Your task to perform on an android device: change notification settings in the gmail app Image 0: 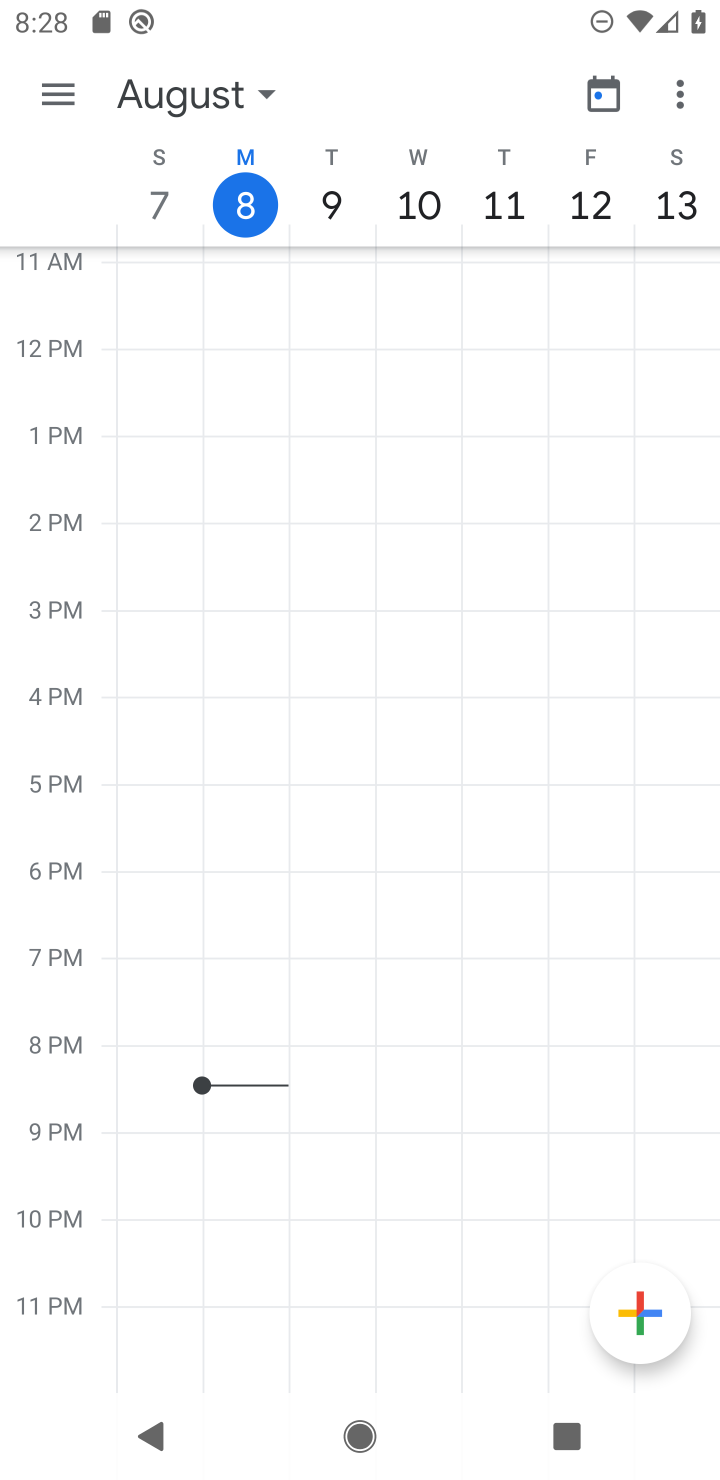
Step 0: press home button
Your task to perform on an android device: change notification settings in the gmail app Image 1: 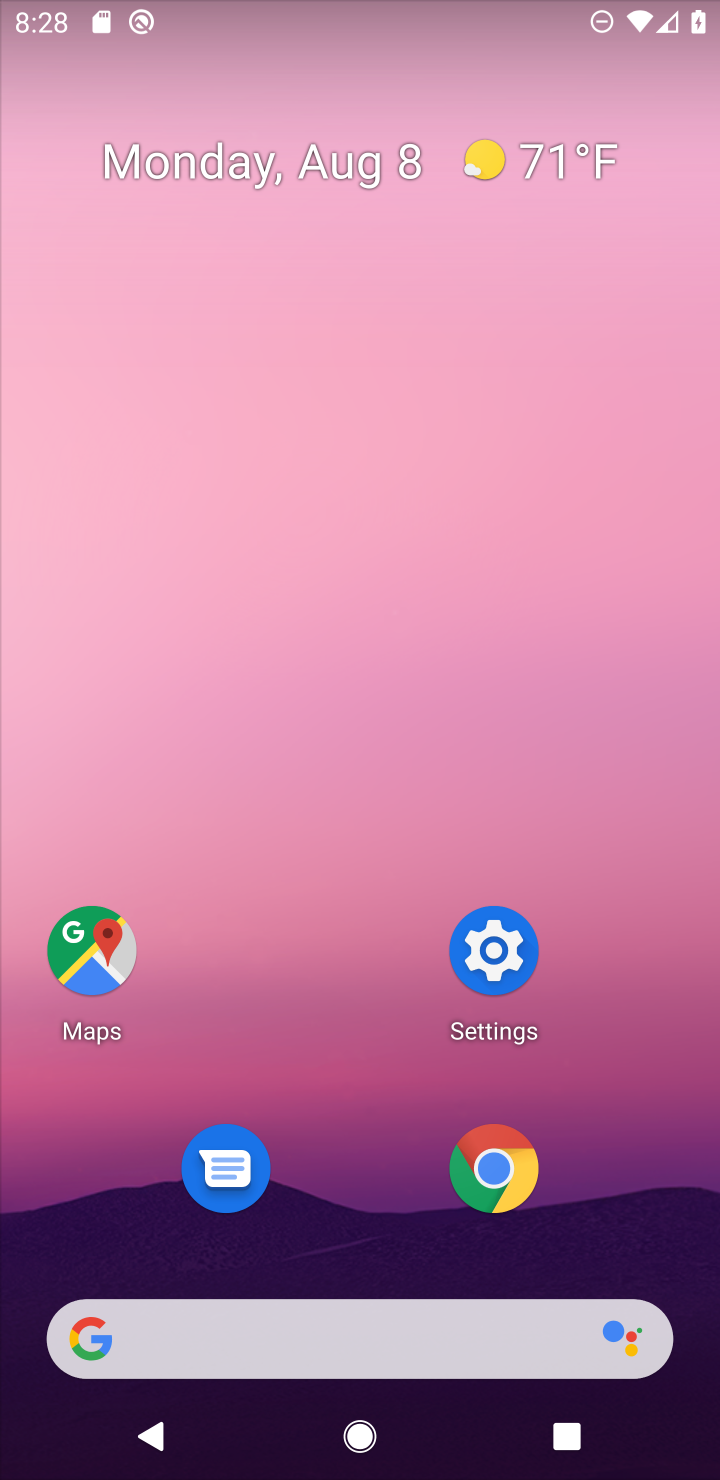
Step 1: drag from (438, 1187) to (718, 192)
Your task to perform on an android device: change notification settings in the gmail app Image 2: 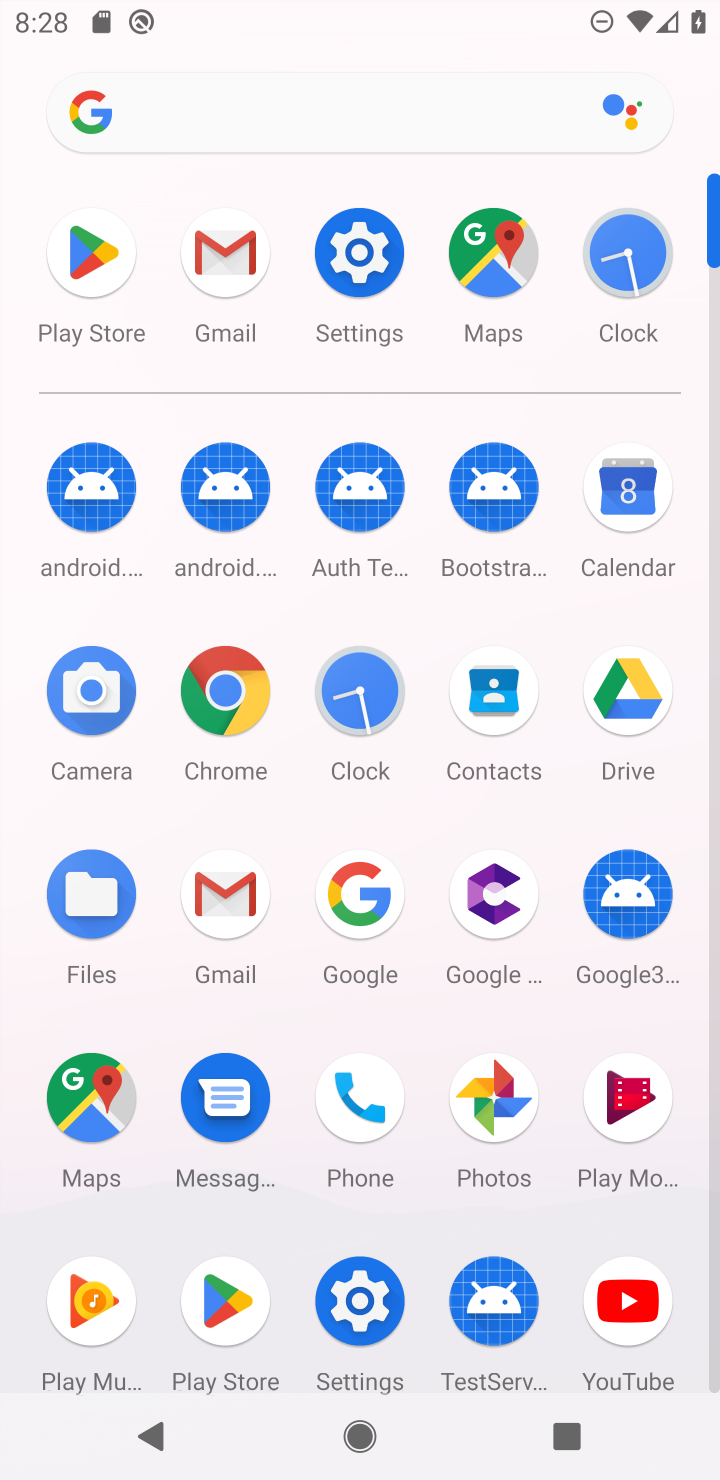
Step 2: click (226, 267)
Your task to perform on an android device: change notification settings in the gmail app Image 3: 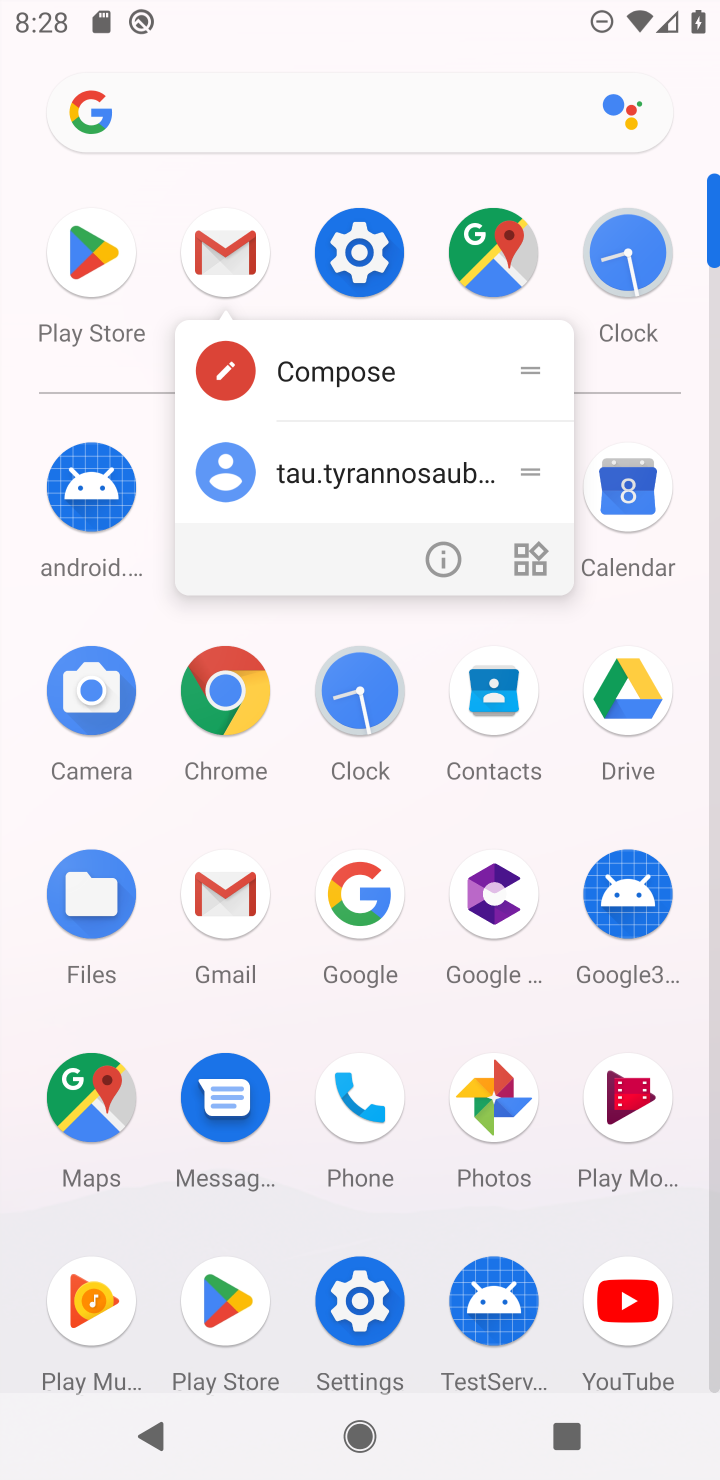
Step 3: click (215, 243)
Your task to perform on an android device: change notification settings in the gmail app Image 4: 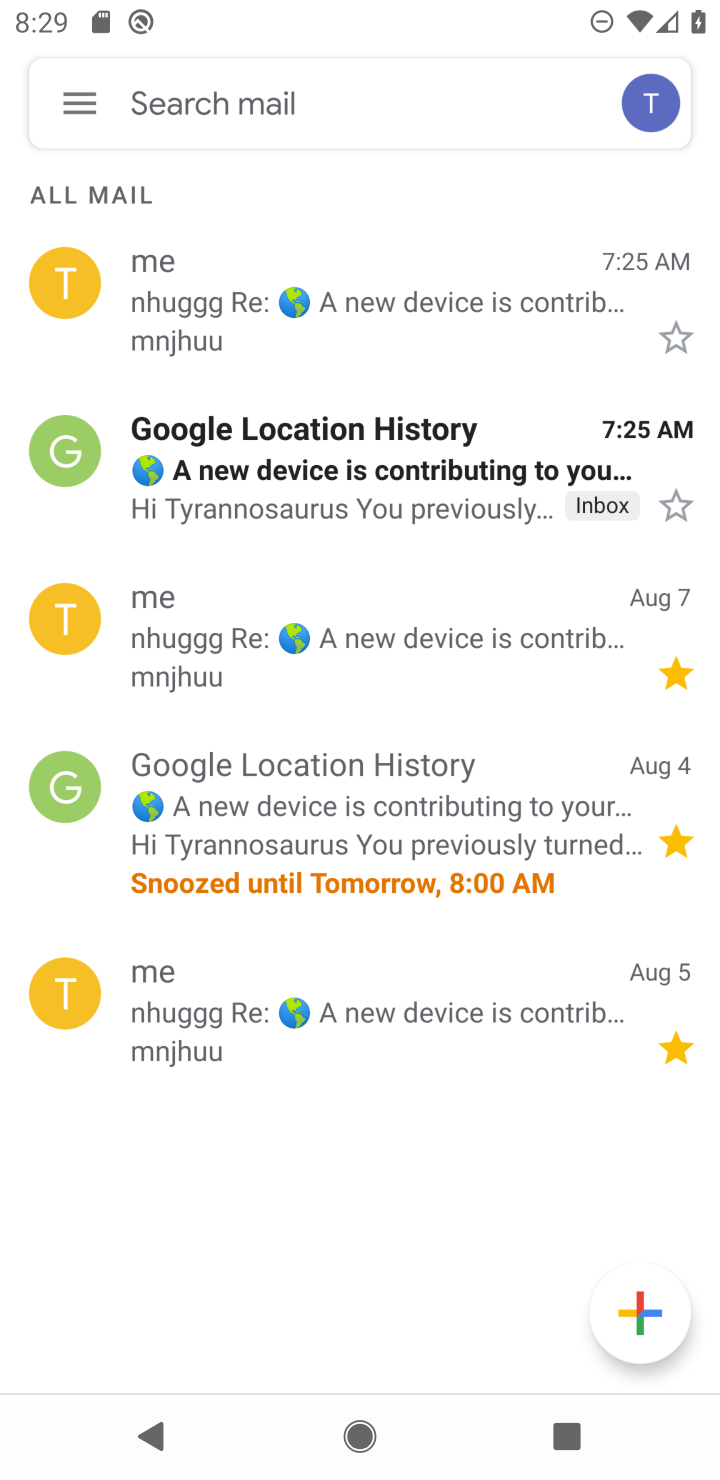
Step 4: click (215, 243)
Your task to perform on an android device: change notification settings in the gmail app Image 5: 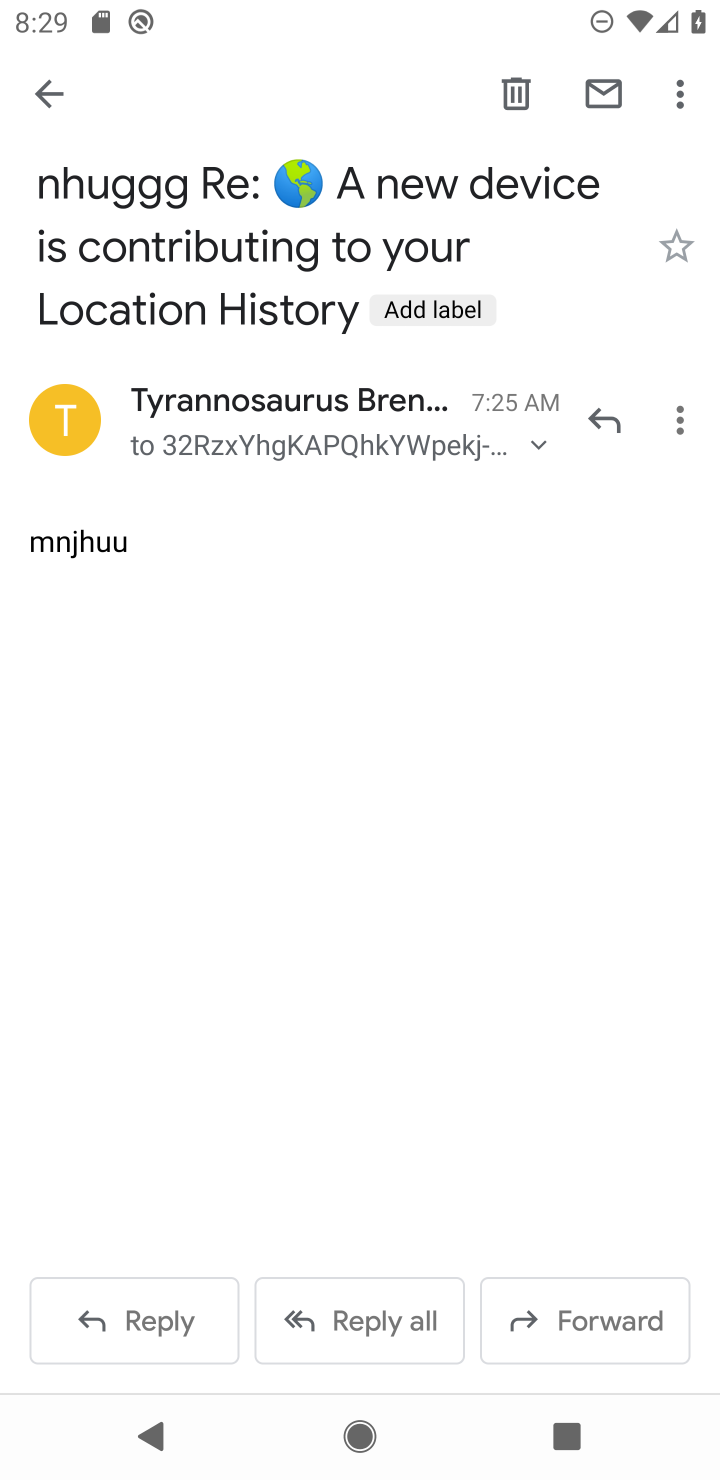
Step 5: click (41, 93)
Your task to perform on an android device: change notification settings in the gmail app Image 6: 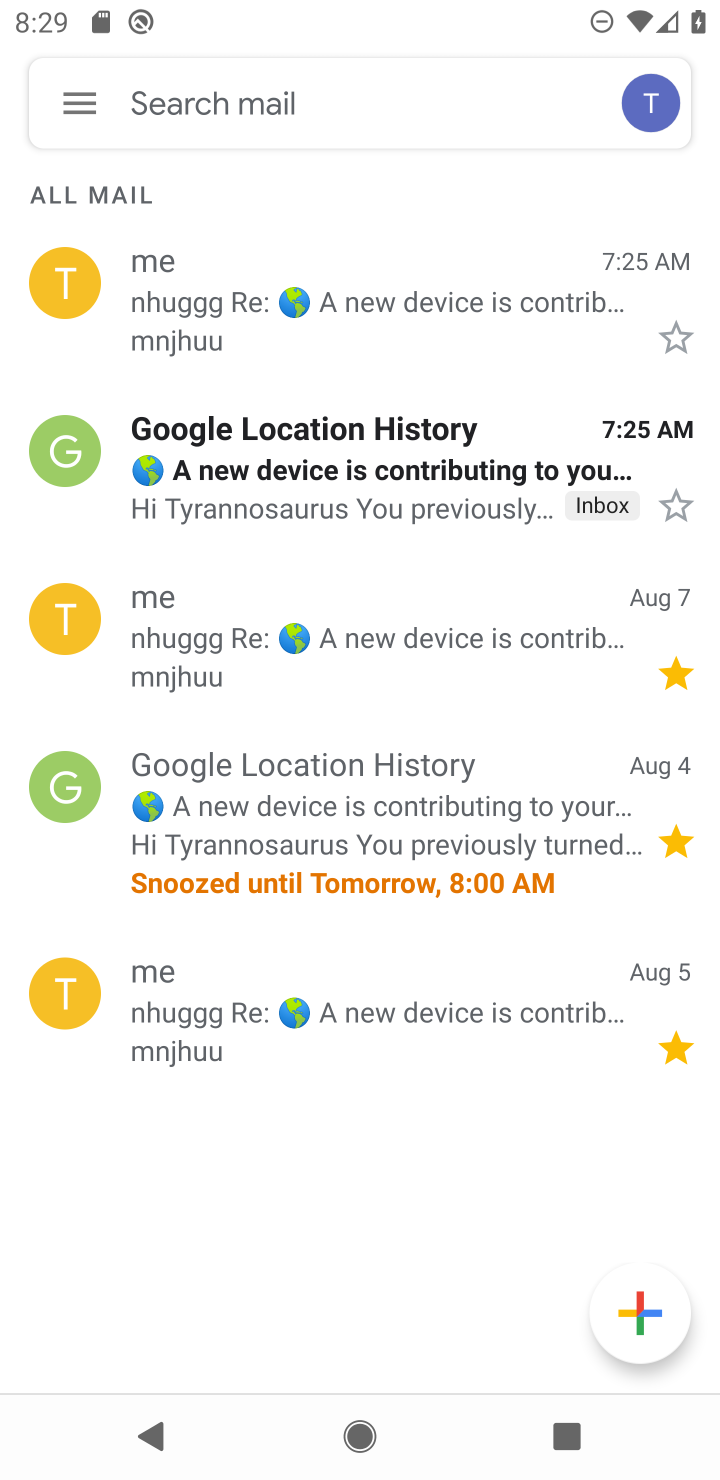
Step 6: click (68, 102)
Your task to perform on an android device: change notification settings in the gmail app Image 7: 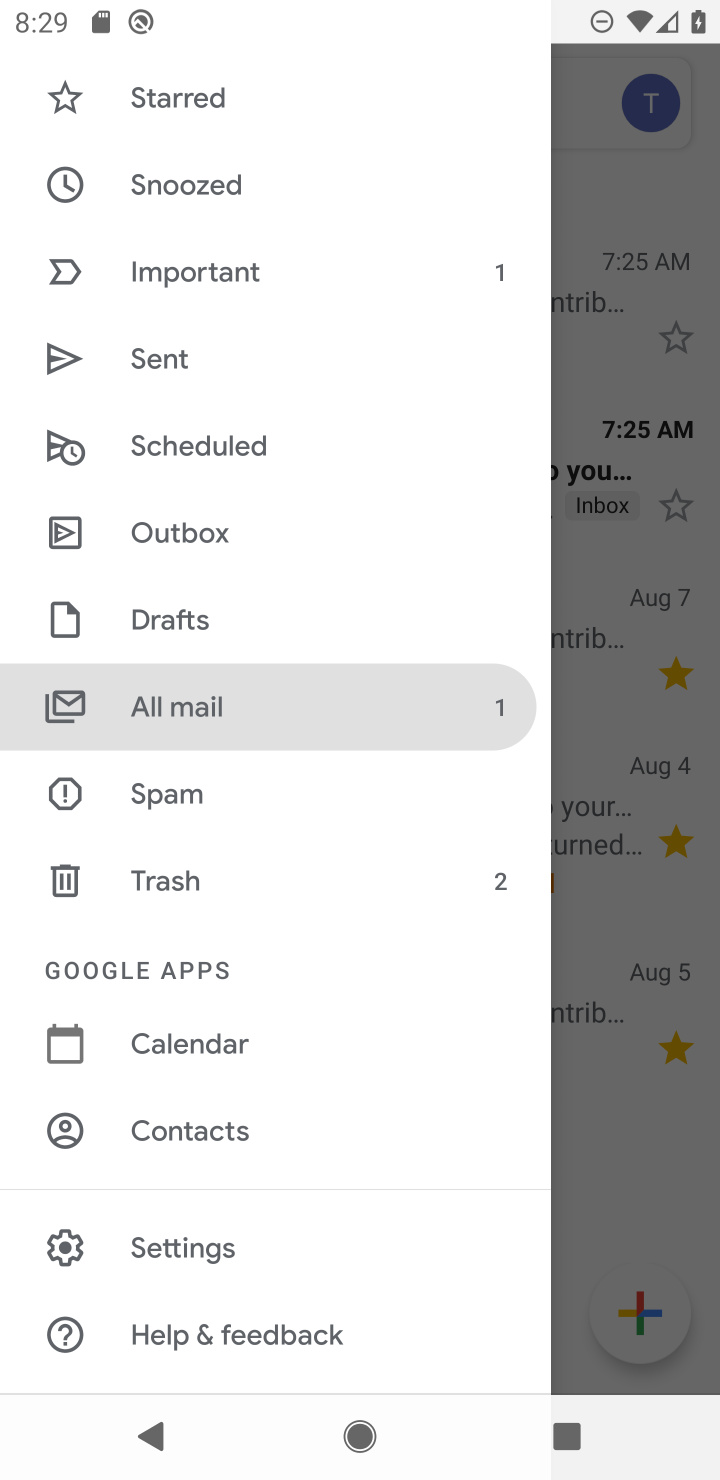
Step 7: click (166, 1244)
Your task to perform on an android device: change notification settings in the gmail app Image 8: 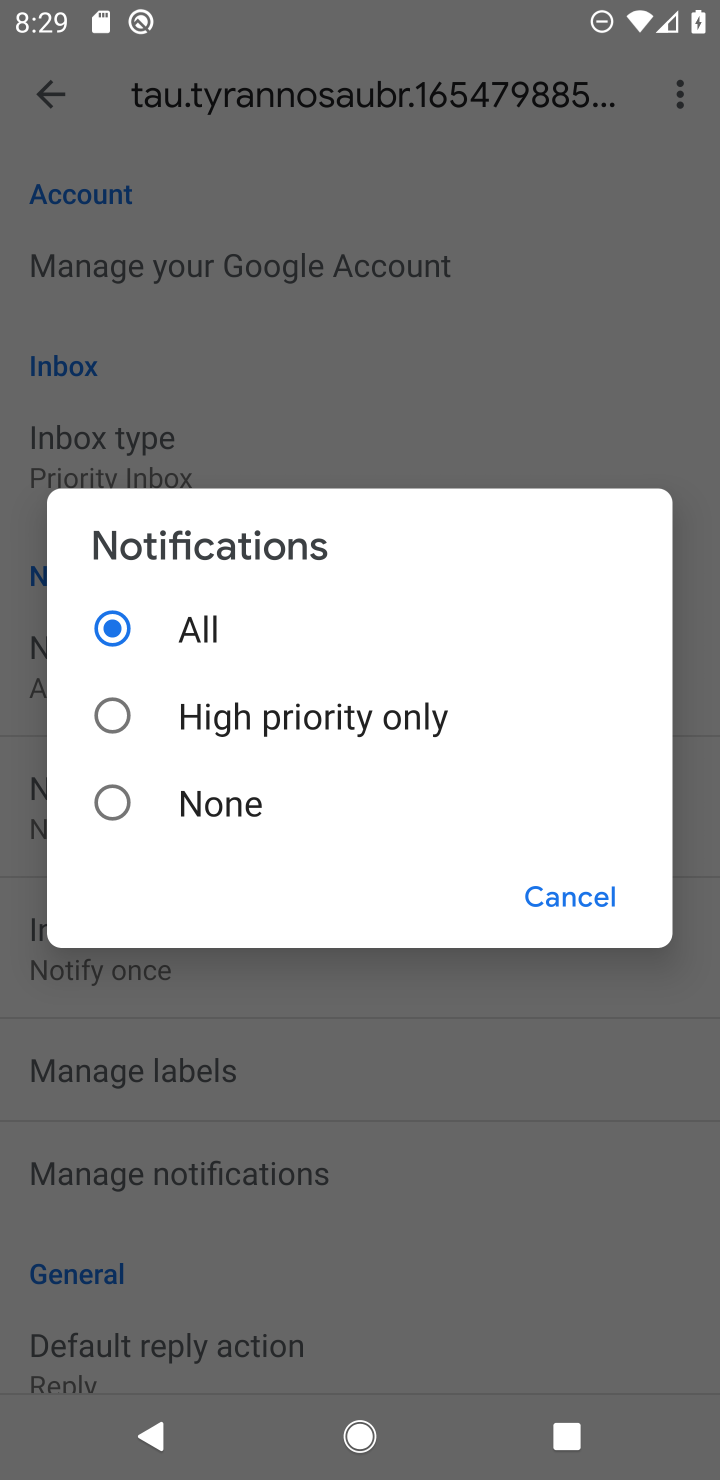
Step 8: click (101, 790)
Your task to perform on an android device: change notification settings in the gmail app Image 9: 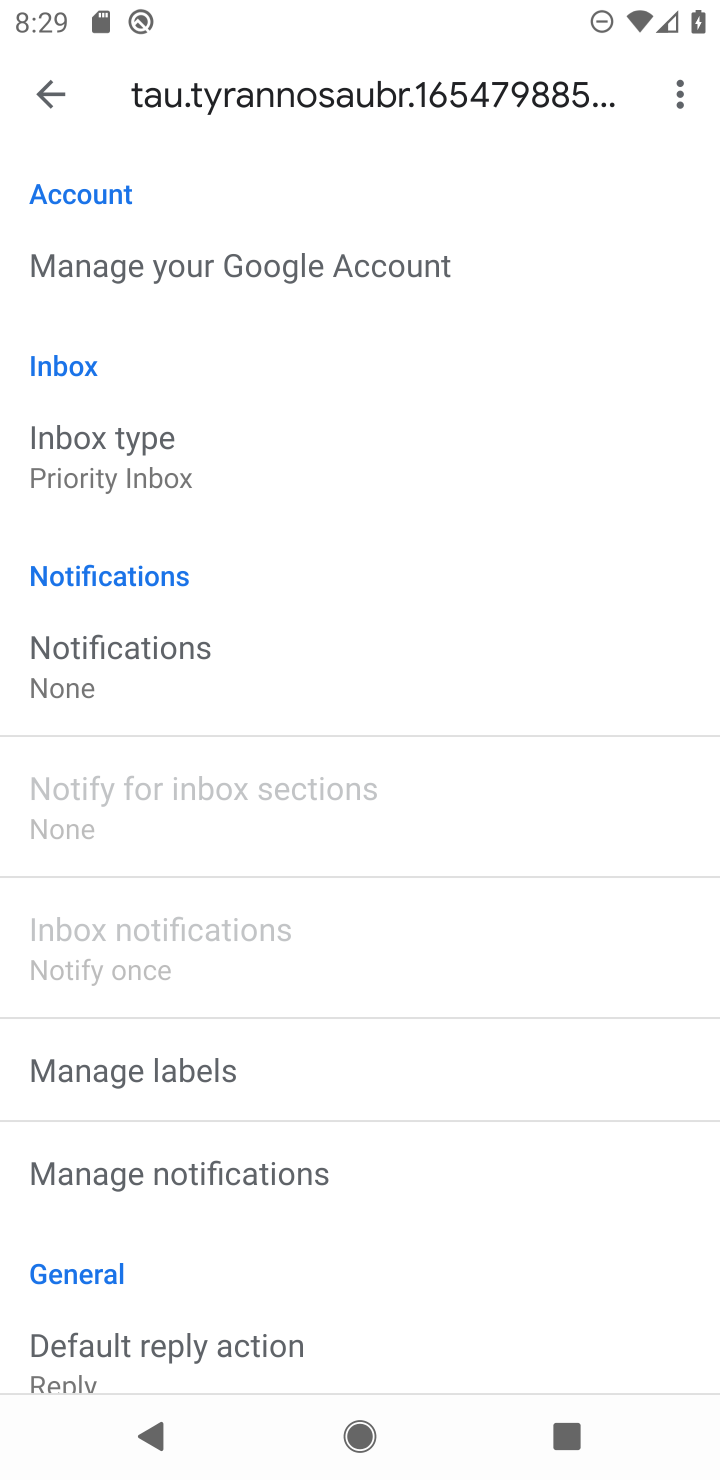
Step 9: task complete